Your task to perform on an android device: When is my next appointment? Image 0: 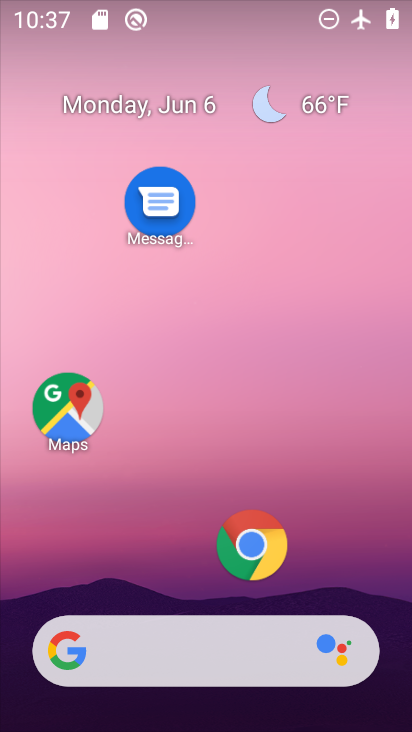
Step 0: drag from (175, 561) to (169, 261)
Your task to perform on an android device: When is my next appointment? Image 1: 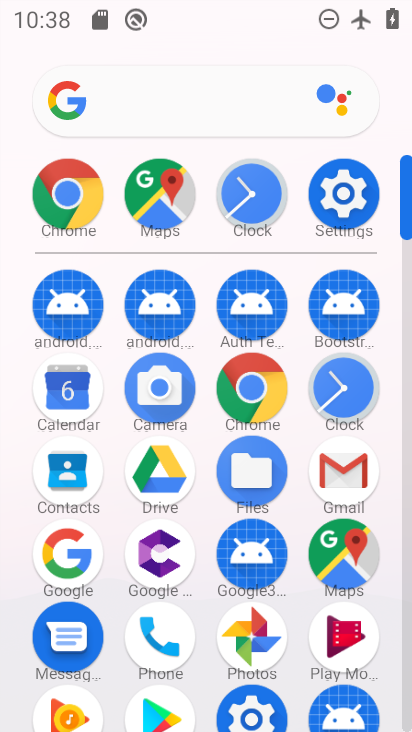
Step 1: click (338, 197)
Your task to perform on an android device: When is my next appointment? Image 2: 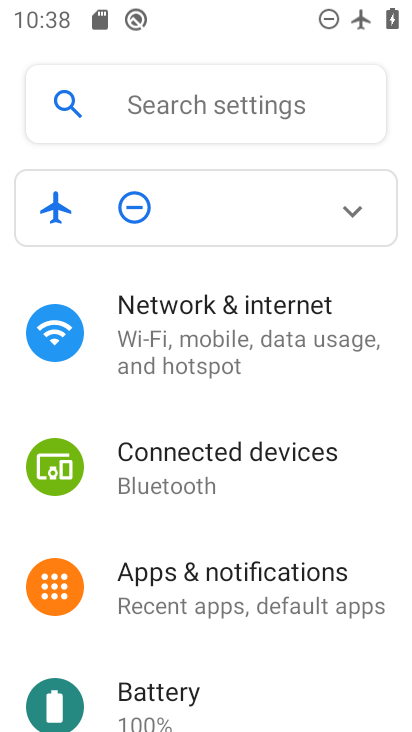
Step 2: press home button
Your task to perform on an android device: When is my next appointment? Image 3: 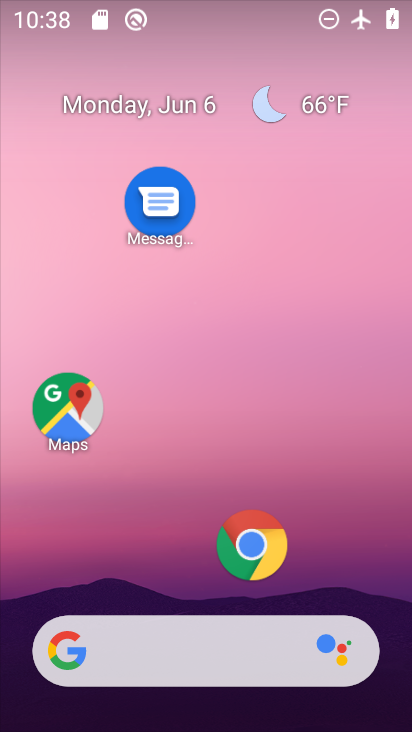
Step 3: drag from (206, 596) to (283, 261)
Your task to perform on an android device: When is my next appointment? Image 4: 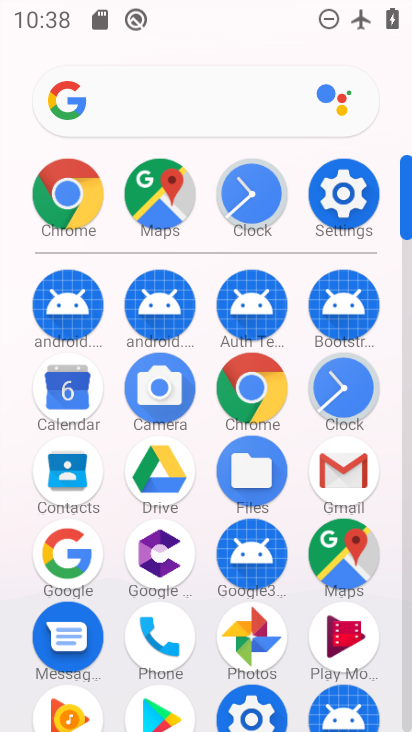
Step 4: click (61, 397)
Your task to perform on an android device: When is my next appointment? Image 5: 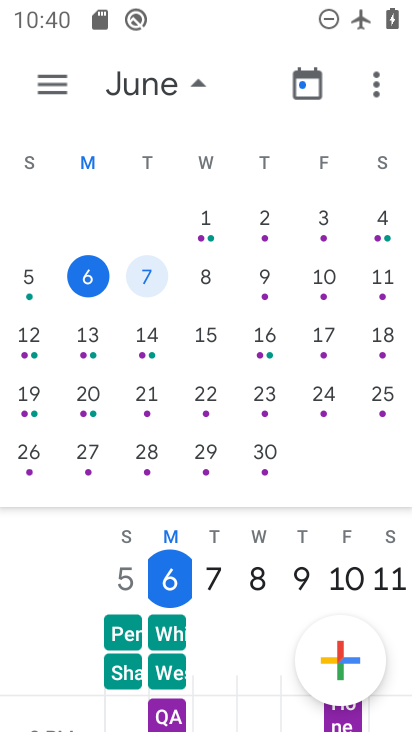
Step 5: click (146, 277)
Your task to perform on an android device: When is my next appointment? Image 6: 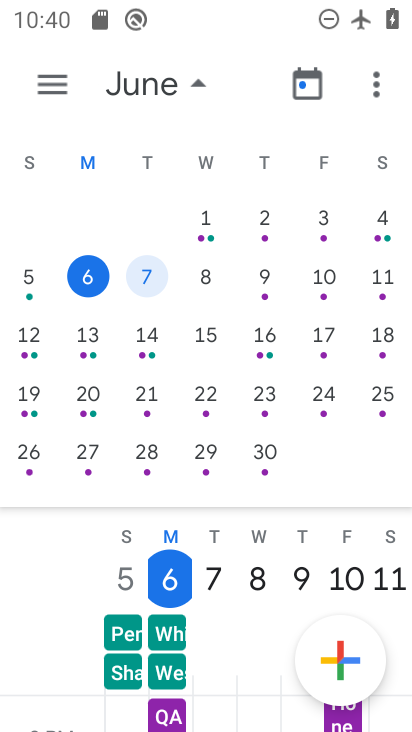
Step 6: click (199, 286)
Your task to perform on an android device: When is my next appointment? Image 7: 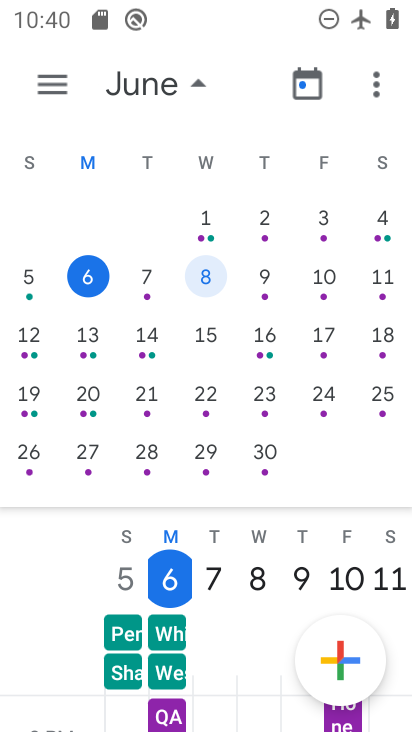
Step 7: task complete